Your task to perform on an android device: toggle javascript in the chrome app Image 0: 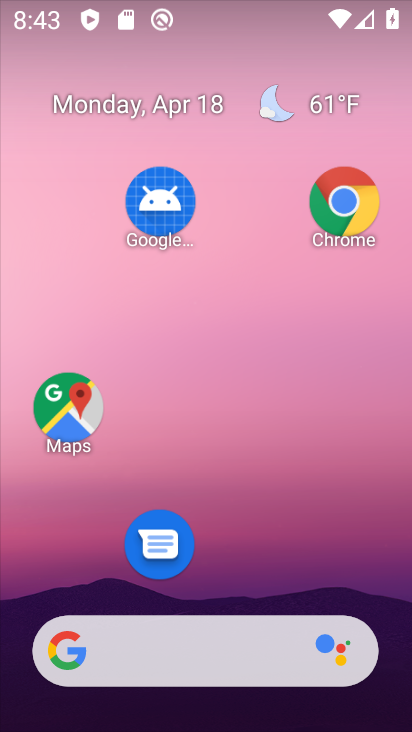
Step 0: drag from (235, 597) to (153, 17)
Your task to perform on an android device: toggle javascript in the chrome app Image 1: 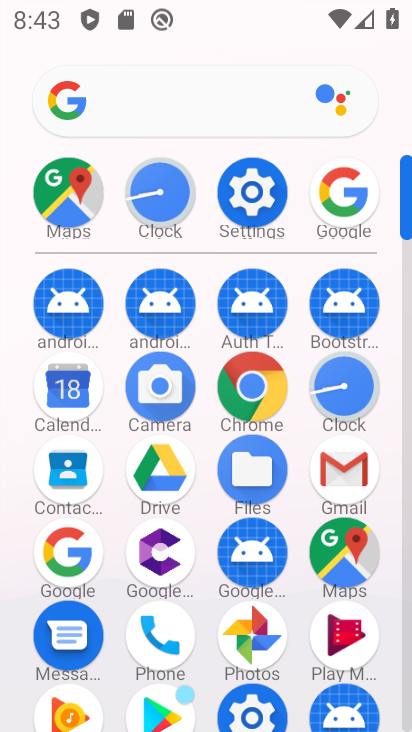
Step 1: click (245, 407)
Your task to perform on an android device: toggle javascript in the chrome app Image 2: 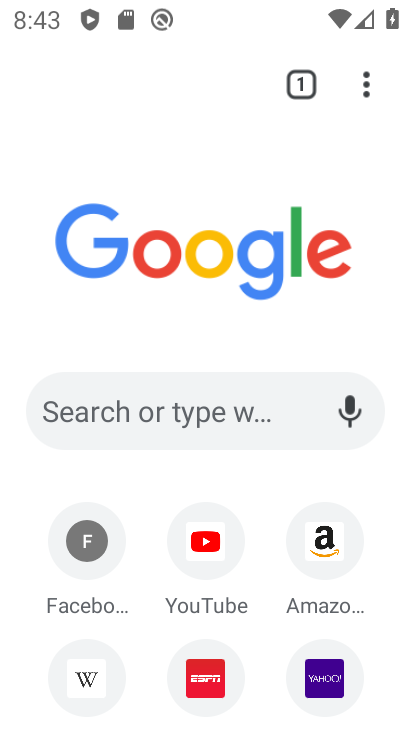
Step 2: click (365, 80)
Your task to perform on an android device: toggle javascript in the chrome app Image 3: 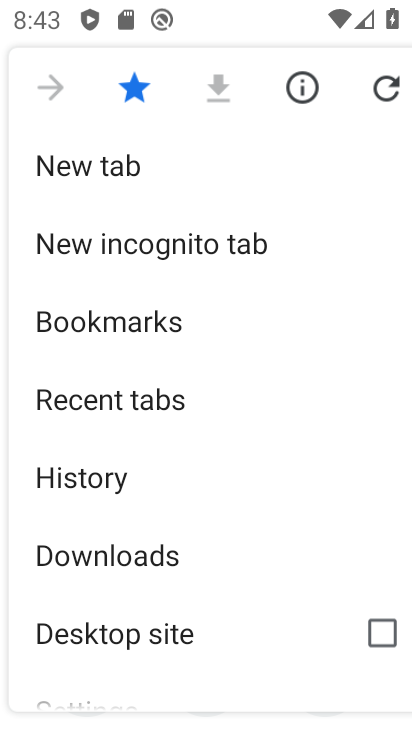
Step 3: drag from (191, 541) to (104, 156)
Your task to perform on an android device: toggle javascript in the chrome app Image 4: 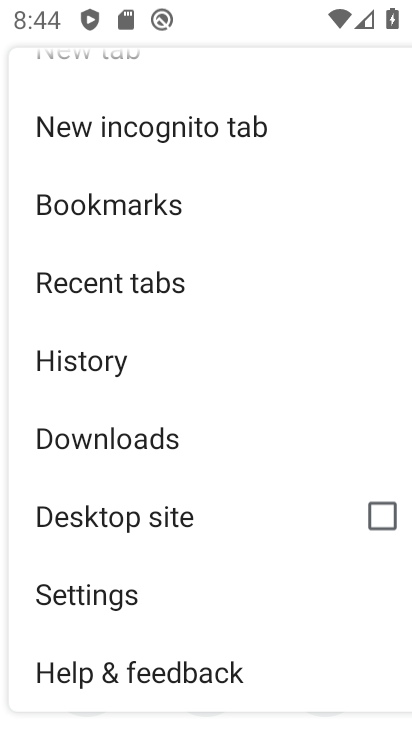
Step 4: click (86, 587)
Your task to perform on an android device: toggle javascript in the chrome app Image 5: 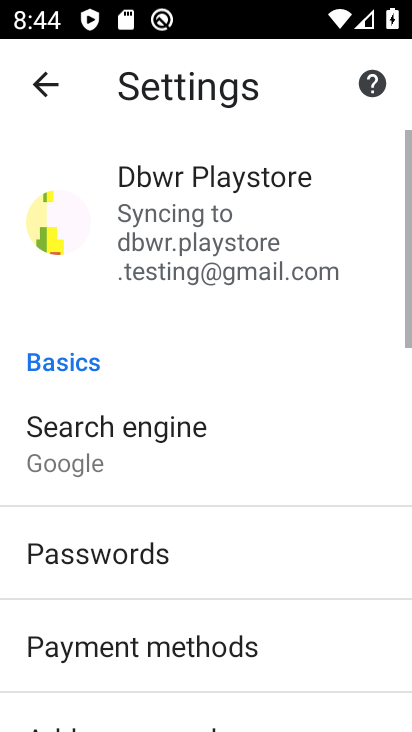
Step 5: drag from (128, 591) to (113, 185)
Your task to perform on an android device: toggle javascript in the chrome app Image 6: 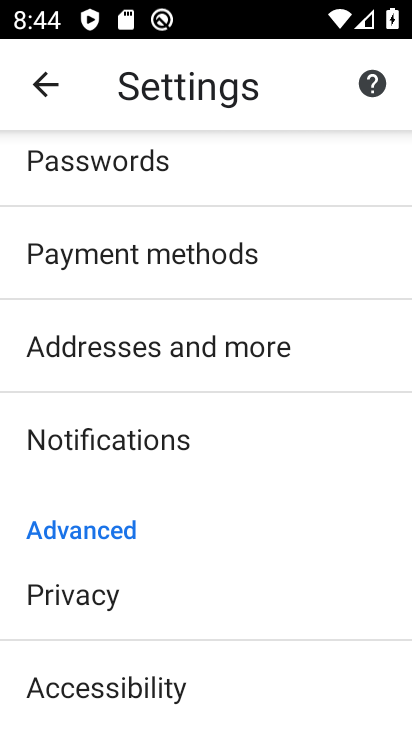
Step 6: drag from (129, 673) to (64, 297)
Your task to perform on an android device: toggle javascript in the chrome app Image 7: 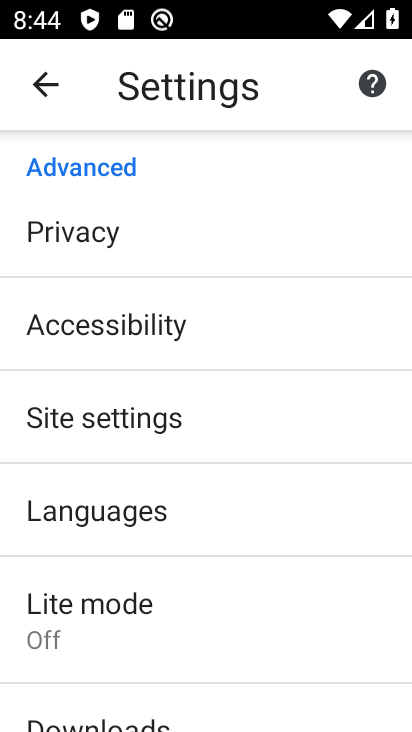
Step 7: click (93, 432)
Your task to perform on an android device: toggle javascript in the chrome app Image 8: 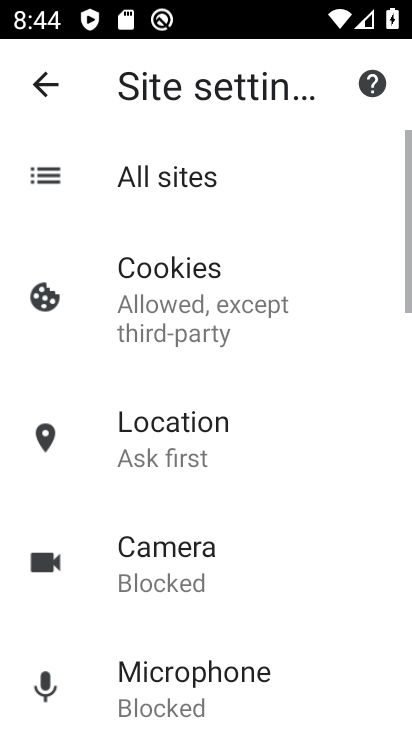
Step 8: drag from (166, 545) to (159, 72)
Your task to perform on an android device: toggle javascript in the chrome app Image 9: 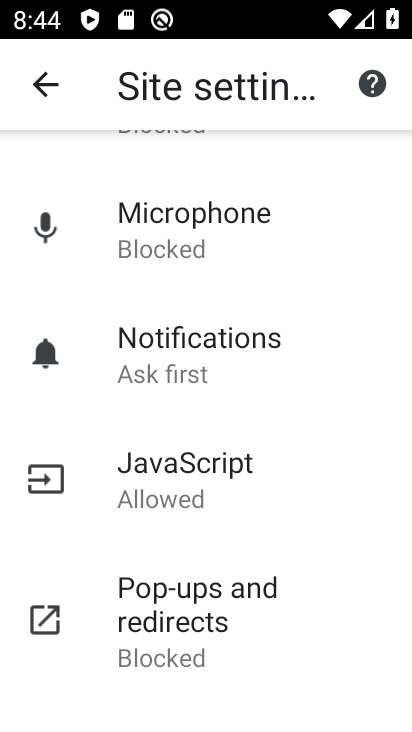
Step 9: click (209, 490)
Your task to perform on an android device: toggle javascript in the chrome app Image 10: 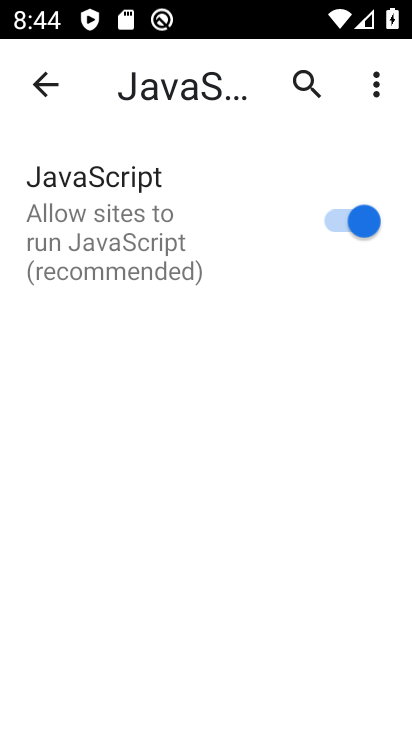
Step 10: click (338, 225)
Your task to perform on an android device: toggle javascript in the chrome app Image 11: 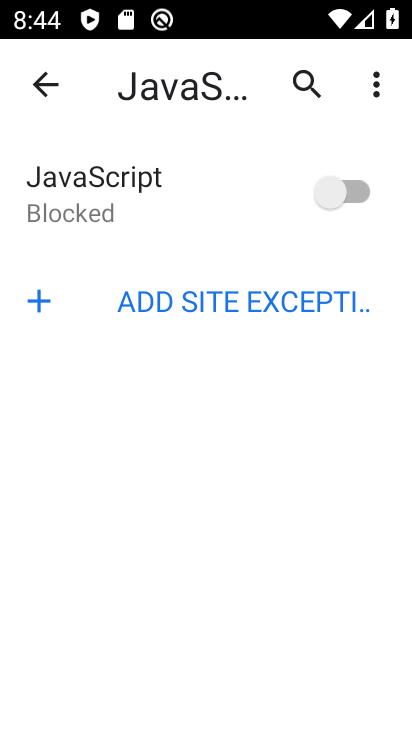
Step 11: task complete